Your task to perform on an android device: install app "Google Drive" Image 0: 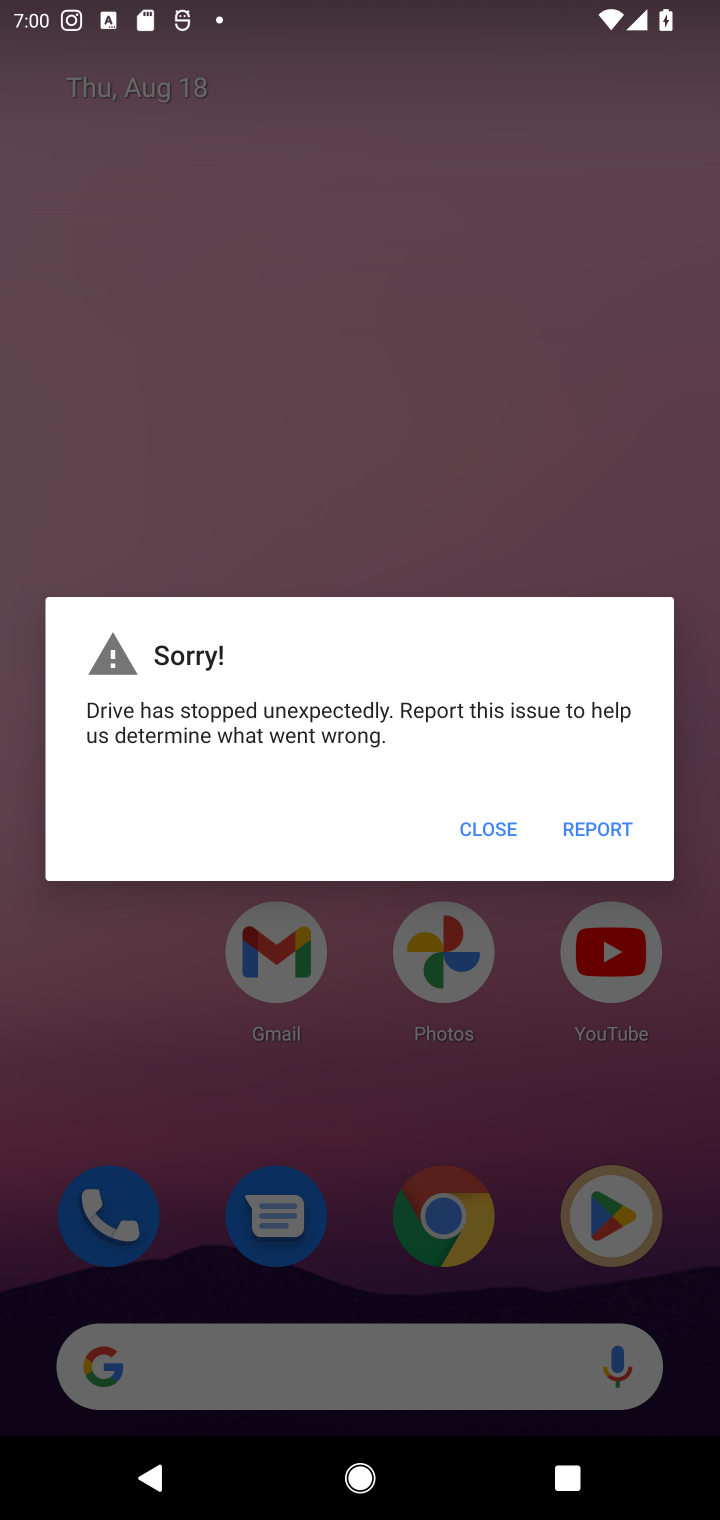
Step 0: click (570, 1188)
Your task to perform on an android device: install app "Google Drive" Image 1: 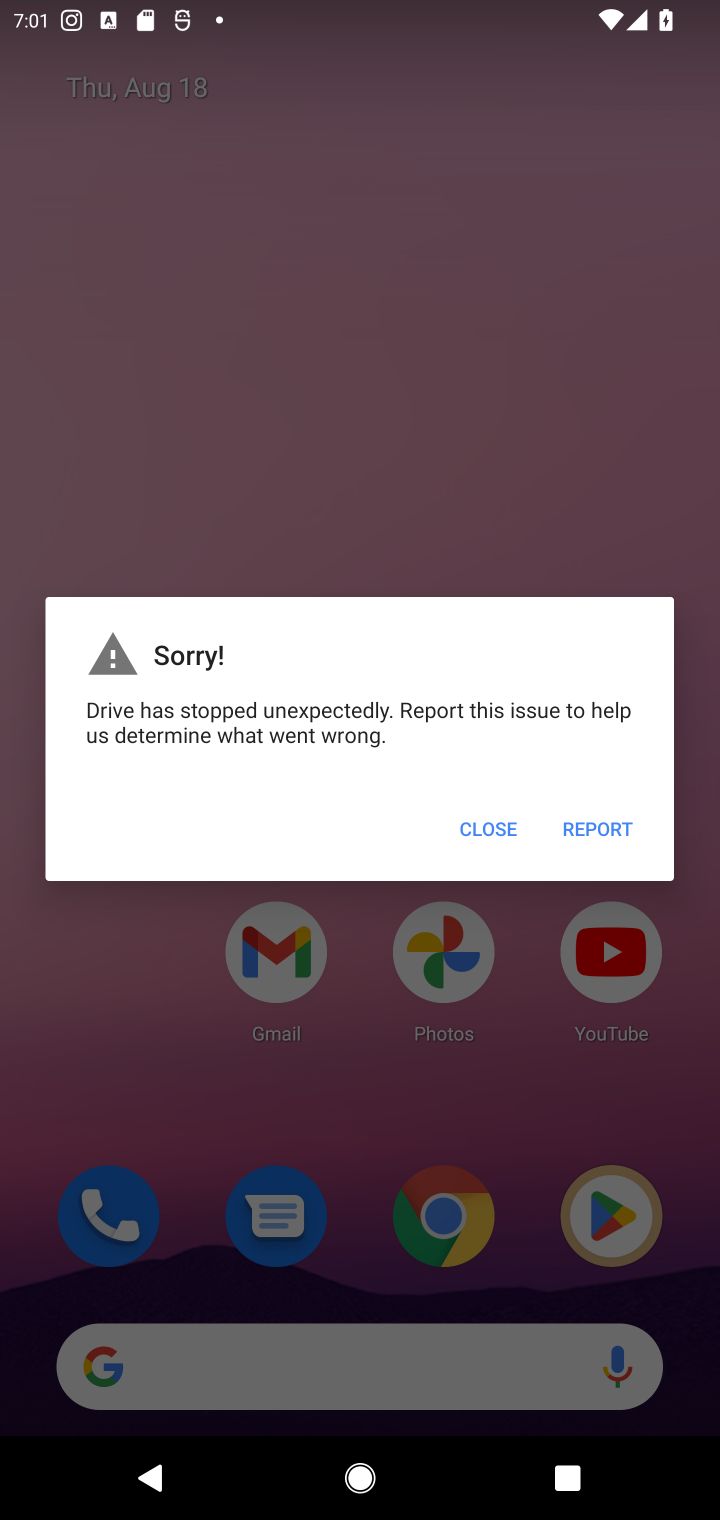
Step 1: click (476, 837)
Your task to perform on an android device: install app "Google Drive" Image 2: 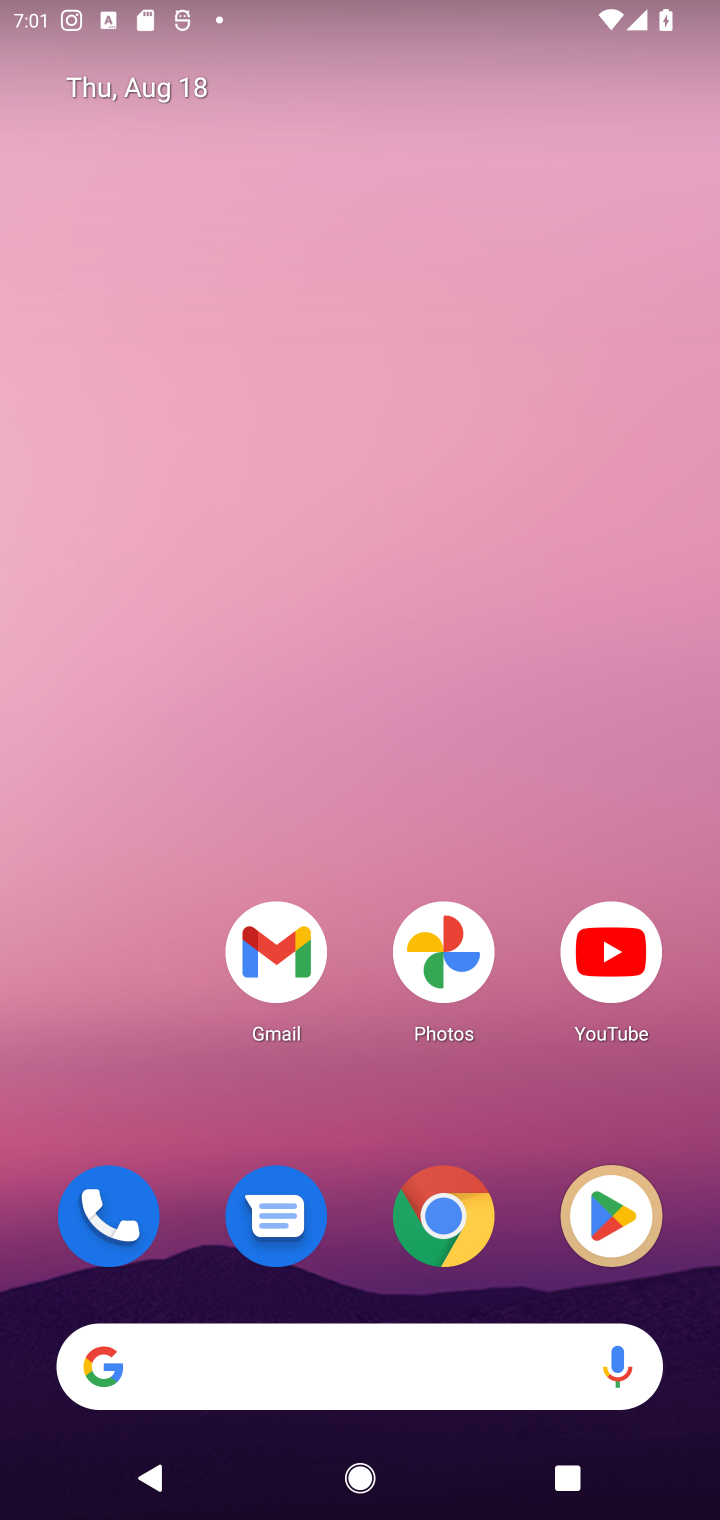
Step 2: click (605, 1219)
Your task to perform on an android device: install app "Google Drive" Image 3: 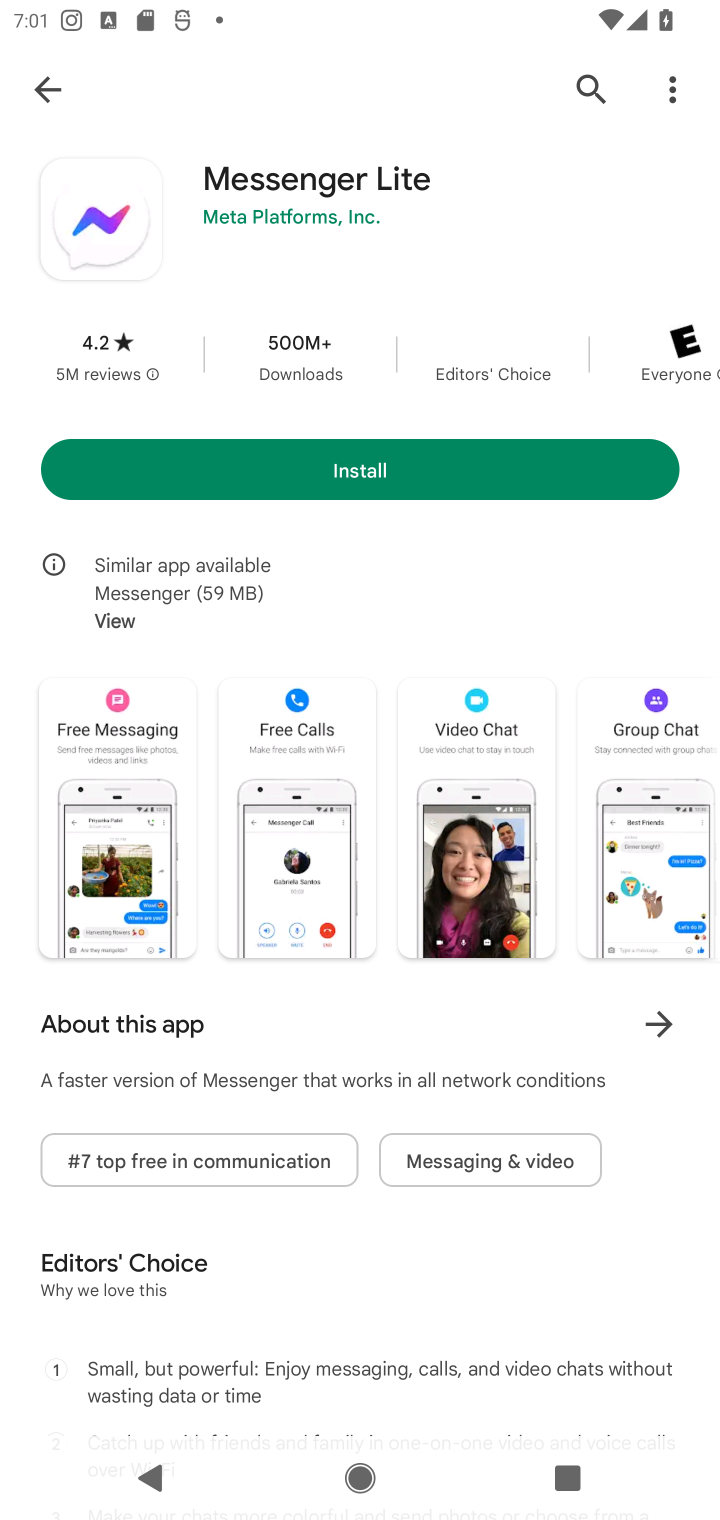
Step 3: click (594, 92)
Your task to perform on an android device: install app "Google Drive" Image 4: 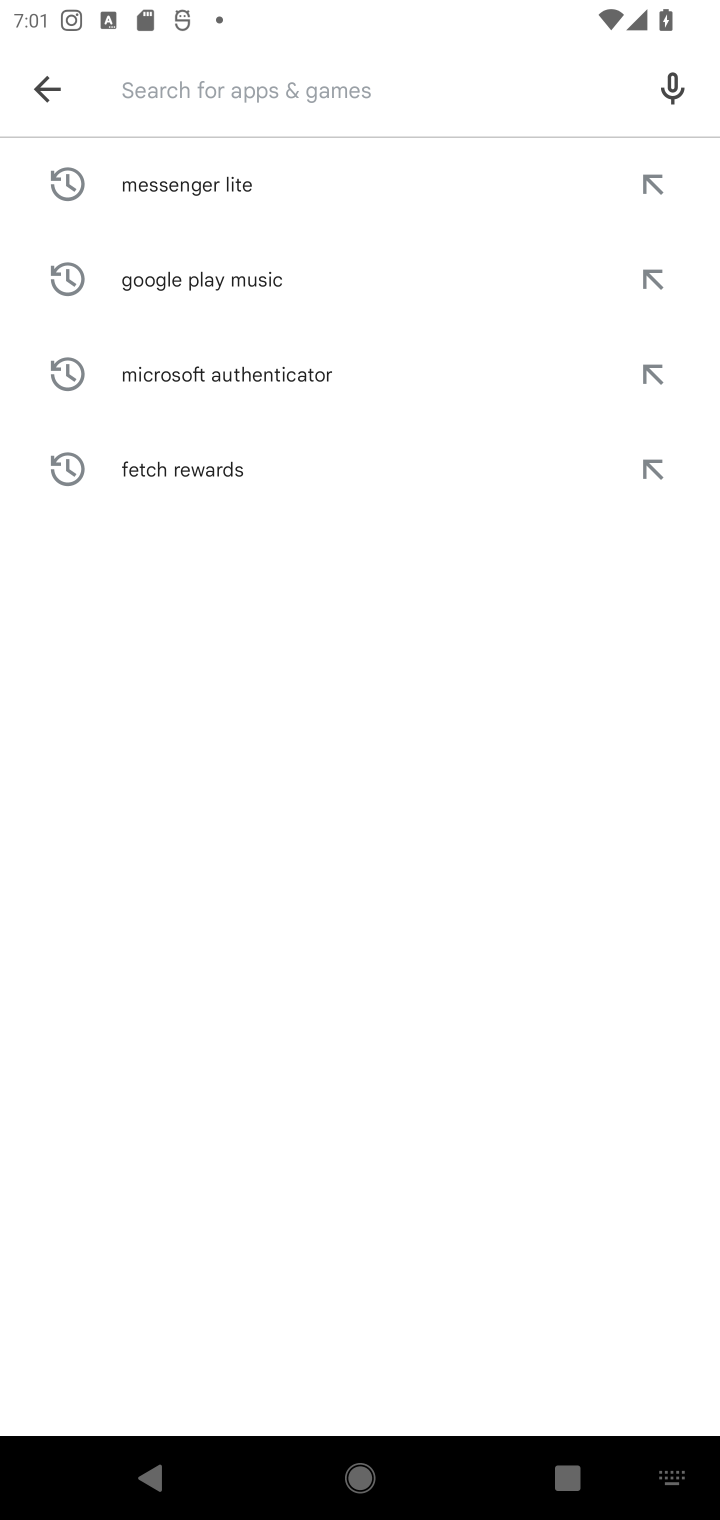
Step 4: type "Google Drive"
Your task to perform on an android device: install app "Google Drive" Image 5: 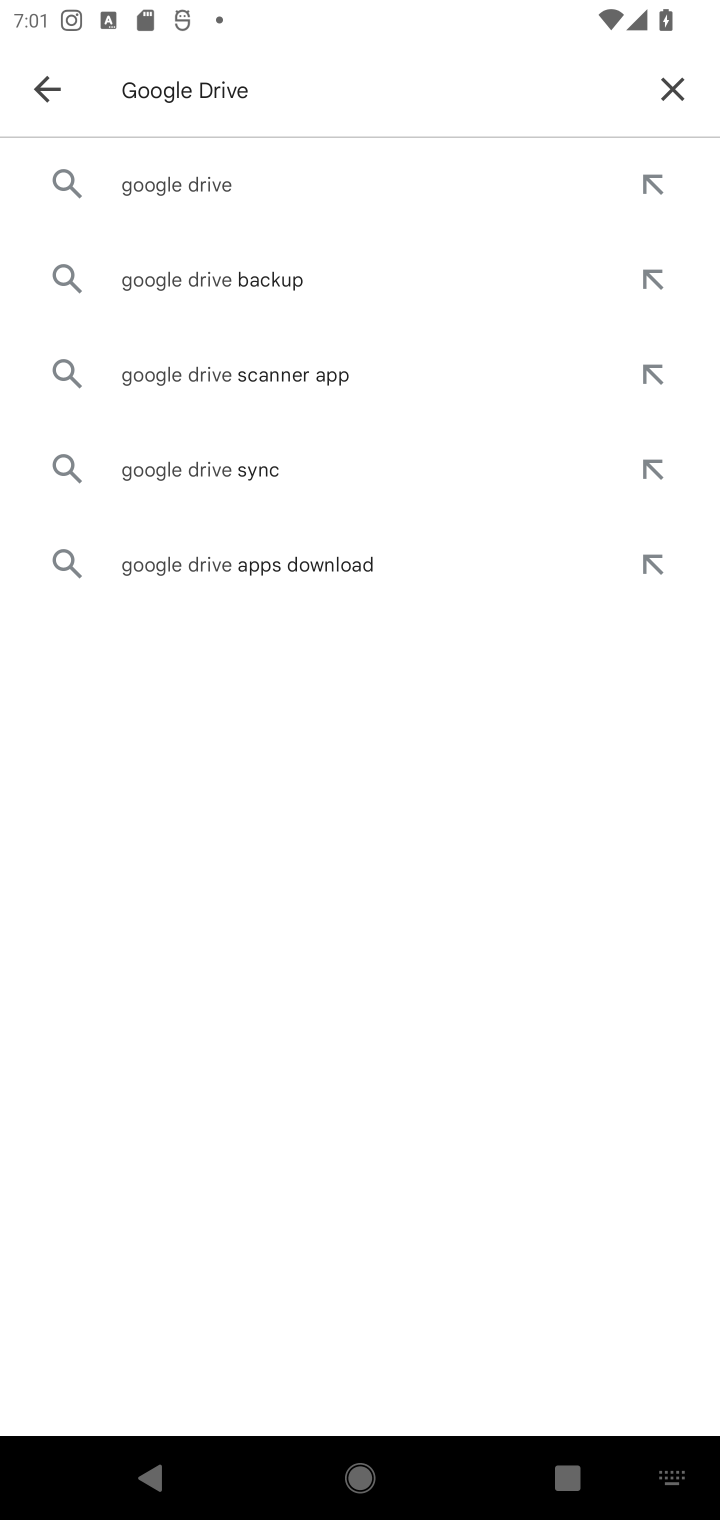
Step 5: click (150, 183)
Your task to perform on an android device: install app "Google Drive" Image 6: 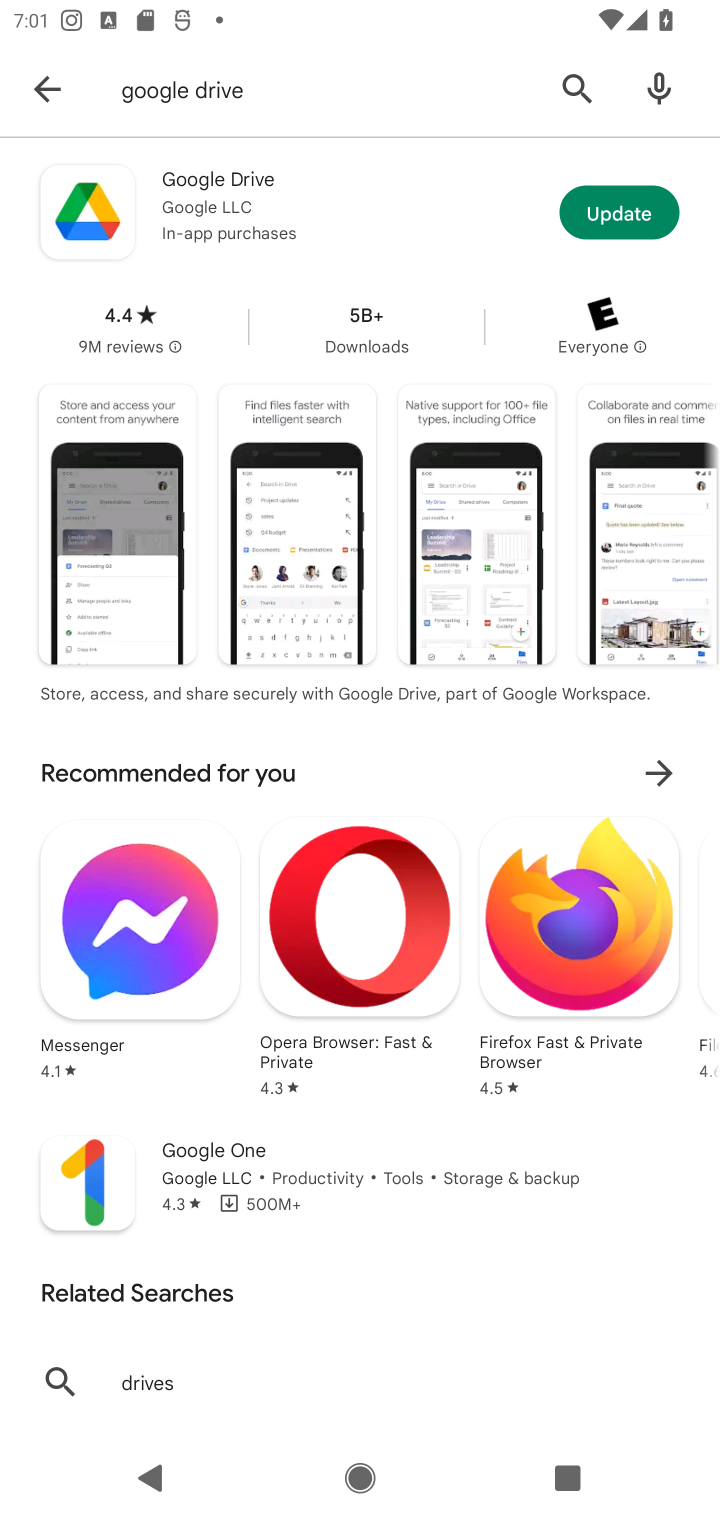
Step 6: click (309, 197)
Your task to perform on an android device: install app "Google Drive" Image 7: 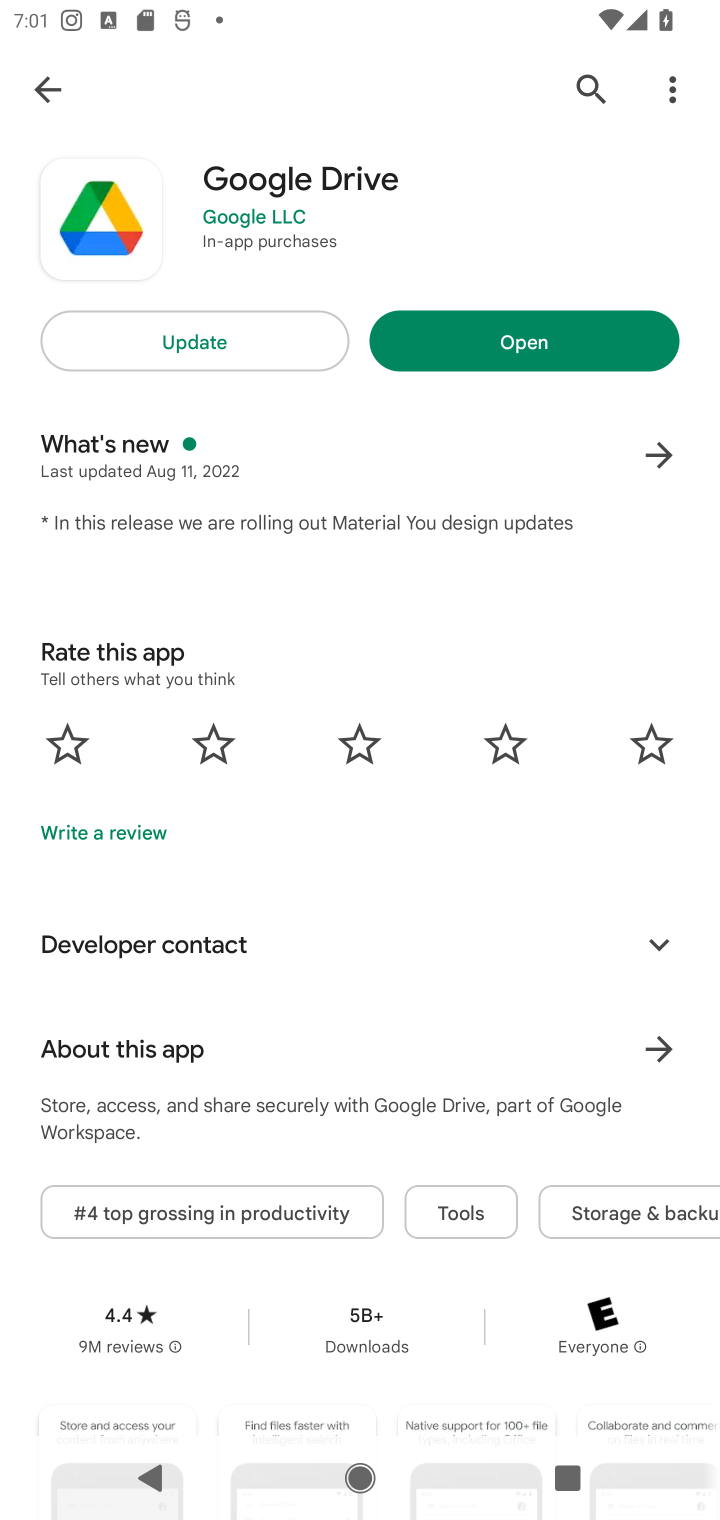
Step 7: task complete